Your task to perform on an android device: Check the news Image 0: 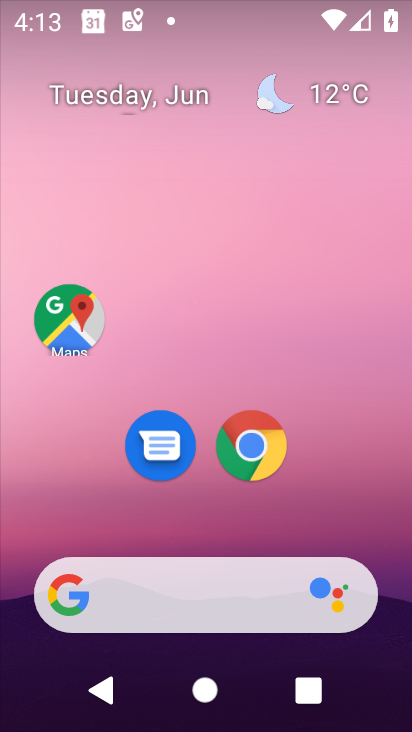
Step 0: drag from (352, 496) to (314, 1)
Your task to perform on an android device: Check the news Image 1: 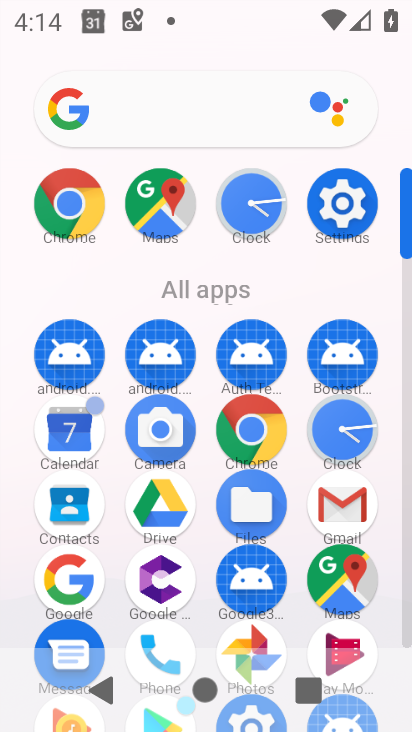
Step 1: click (63, 228)
Your task to perform on an android device: Check the news Image 2: 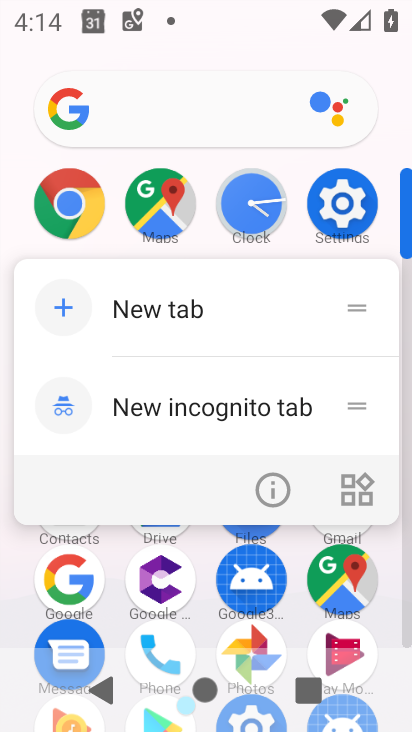
Step 2: click (91, 197)
Your task to perform on an android device: Check the news Image 3: 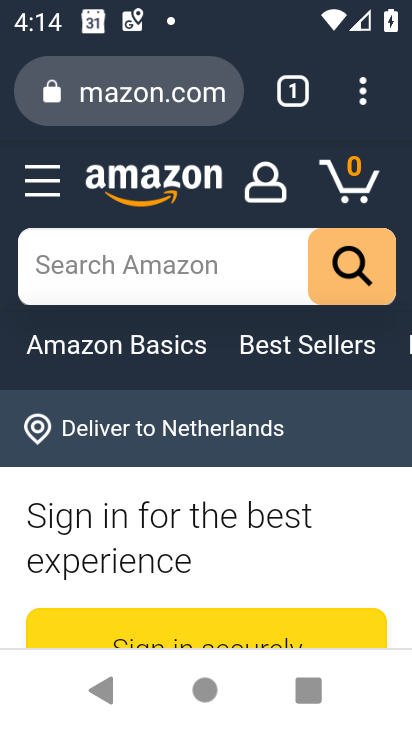
Step 3: click (180, 99)
Your task to perform on an android device: Check the news Image 4: 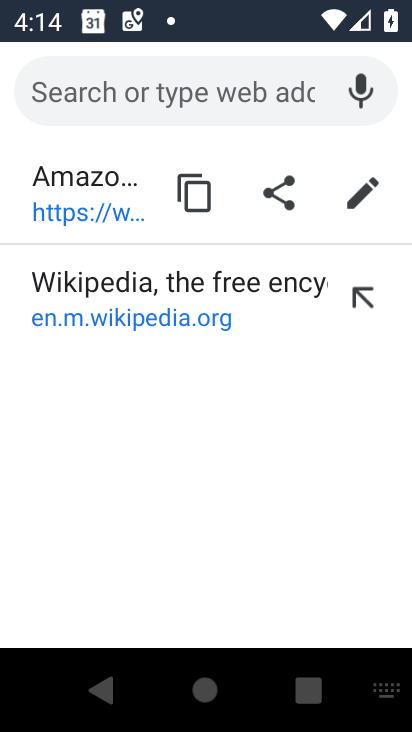
Step 4: task complete